Your task to perform on an android device: turn on the 12-hour format for clock Image 0: 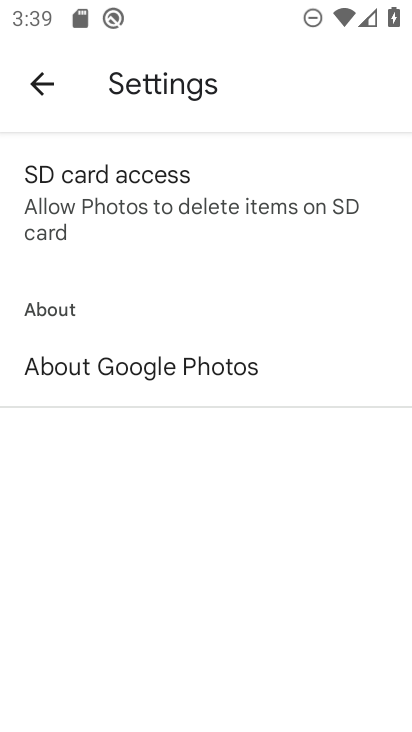
Step 0: press home button
Your task to perform on an android device: turn on the 12-hour format for clock Image 1: 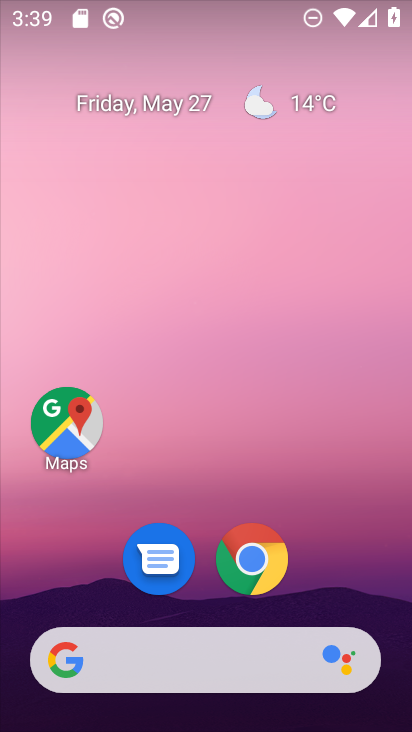
Step 1: drag from (331, 618) to (273, 324)
Your task to perform on an android device: turn on the 12-hour format for clock Image 2: 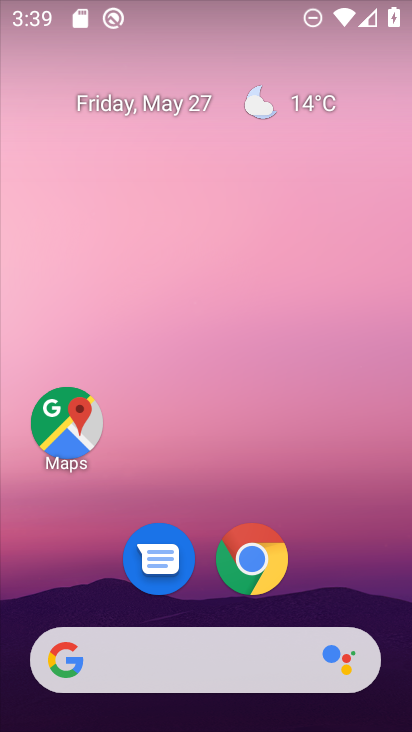
Step 2: drag from (321, 593) to (324, 37)
Your task to perform on an android device: turn on the 12-hour format for clock Image 3: 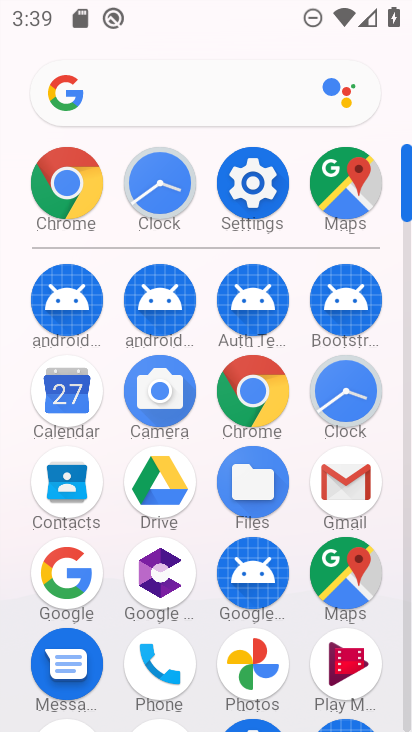
Step 3: click (351, 406)
Your task to perform on an android device: turn on the 12-hour format for clock Image 4: 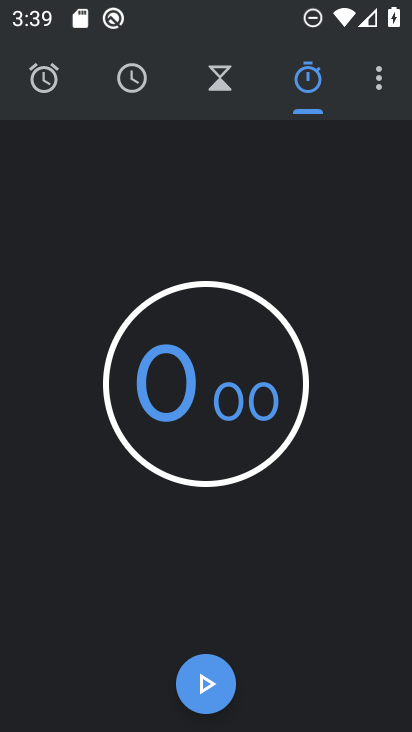
Step 4: click (383, 80)
Your task to perform on an android device: turn on the 12-hour format for clock Image 5: 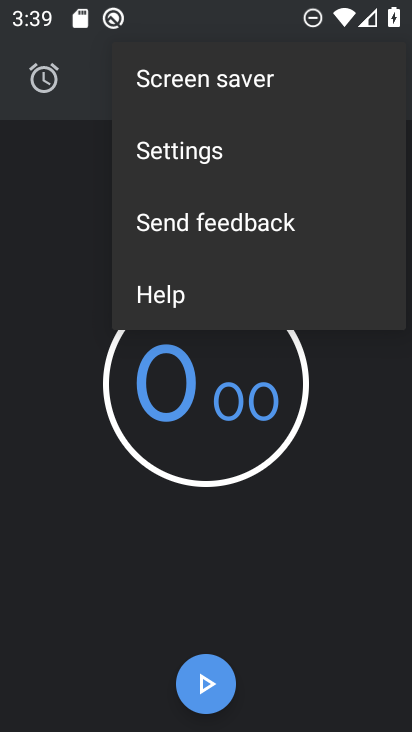
Step 5: click (207, 161)
Your task to perform on an android device: turn on the 12-hour format for clock Image 6: 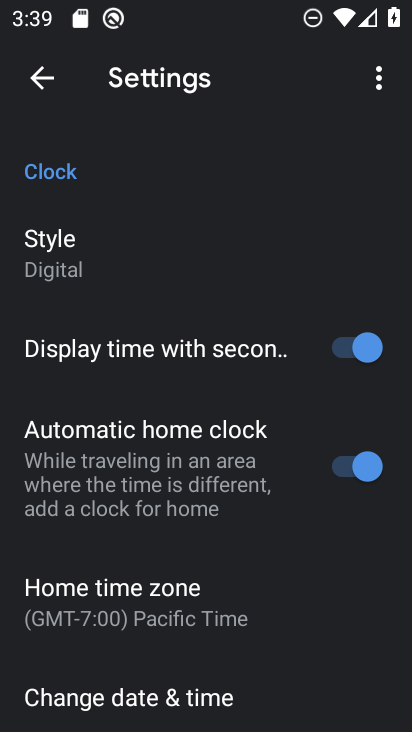
Step 6: drag from (281, 678) to (294, 296)
Your task to perform on an android device: turn on the 12-hour format for clock Image 7: 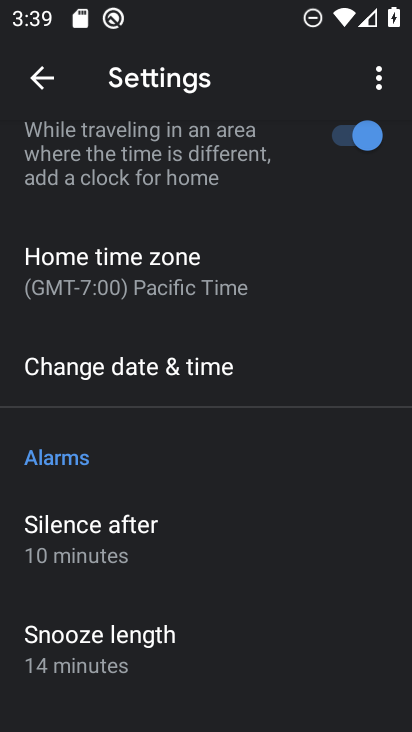
Step 7: drag from (214, 544) to (216, 317)
Your task to perform on an android device: turn on the 12-hour format for clock Image 8: 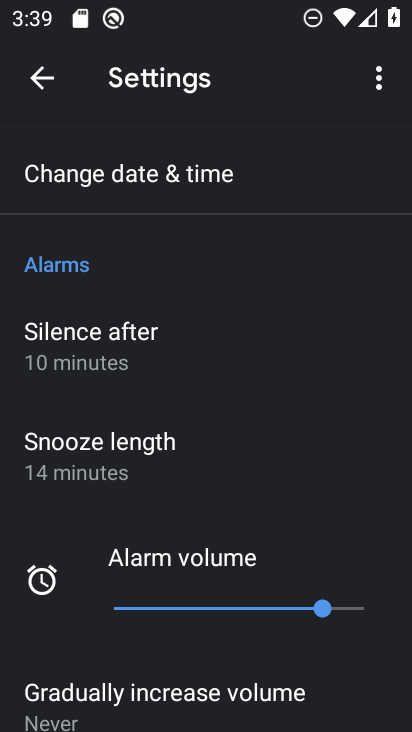
Step 8: click (176, 175)
Your task to perform on an android device: turn on the 12-hour format for clock Image 9: 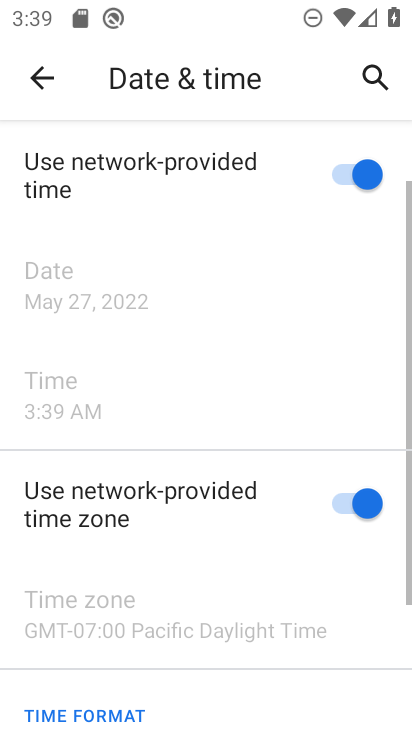
Step 9: drag from (265, 581) to (256, 179)
Your task to perform on an android device: turn on the 12-hour format for clock Image 10: 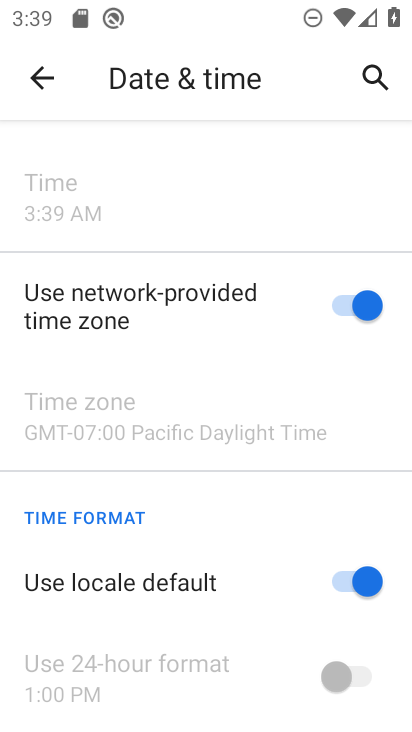
Step 10: drag from (242, 613) to (248, 299)
Your task to perform on an android device: turn on the 12-hour format for clock Image 11: 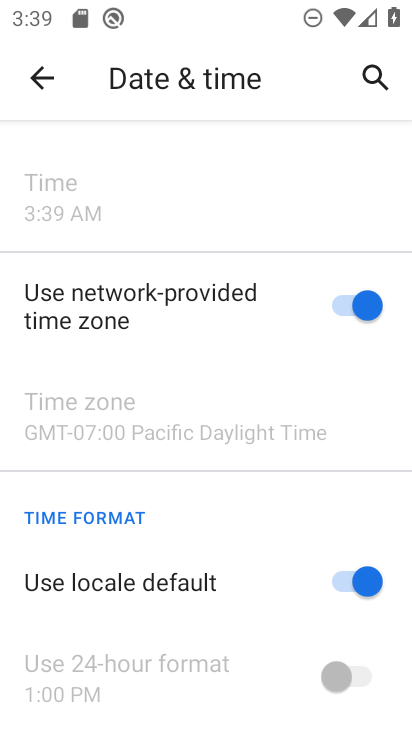
Step 11: click (351, 667)
Your task to perform on an android device: turn on the 12-hour format for clock Image 12: 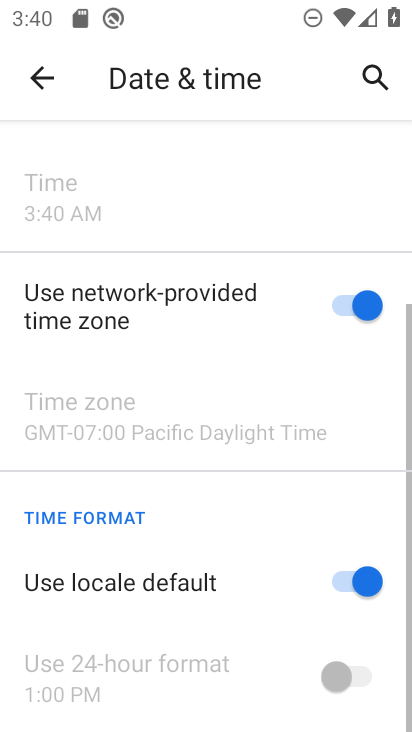
Step 12: task complete